Your task to perform on an android device: What's the news in Suriname? Image 0: 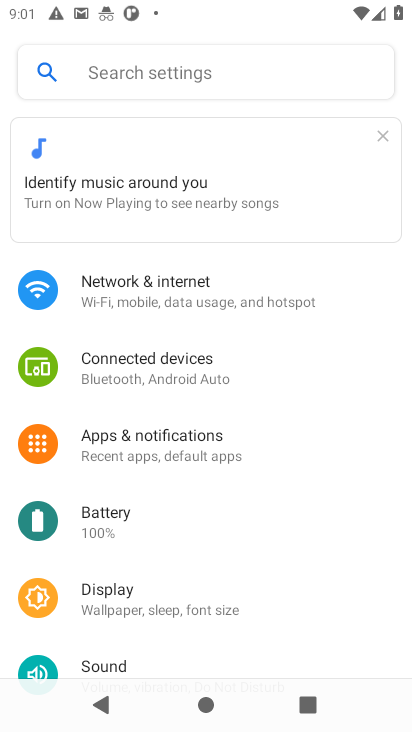
Step 0: press home button
Your task to perform on an android device: What's the news in Suriname? Image 1: 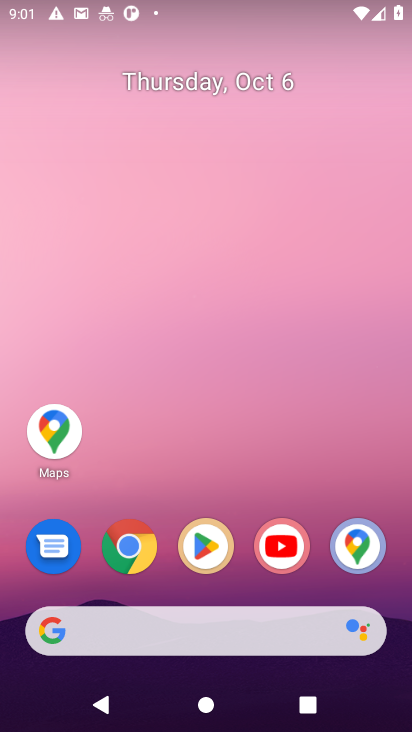
Step 1: click (127, 546)
Your task to perform on an android device: What's the news in Suriname? Image 2: 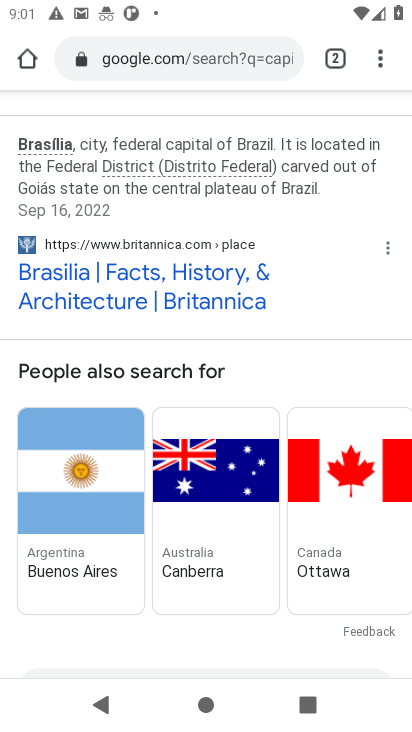
Step 2: click (188, 45)
Your task to perform on an android device: What's the news in Suriname? Image 3: 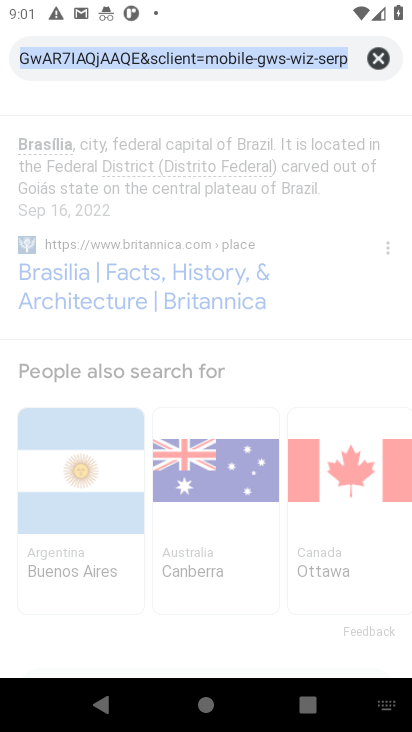
Step 3: click (376, 52)
Your task to perform on an android device: What's the news in Suriname? Image 4: 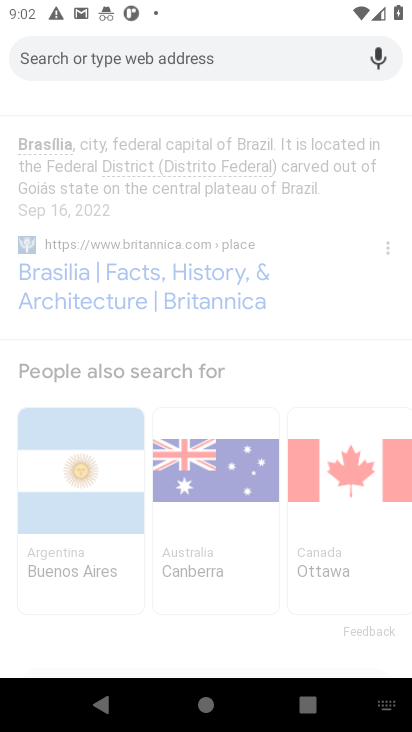
Step 4: type "What's the news in Suriname?"
Your task to perform on an android device: What's the news in Suriname? Image 5: 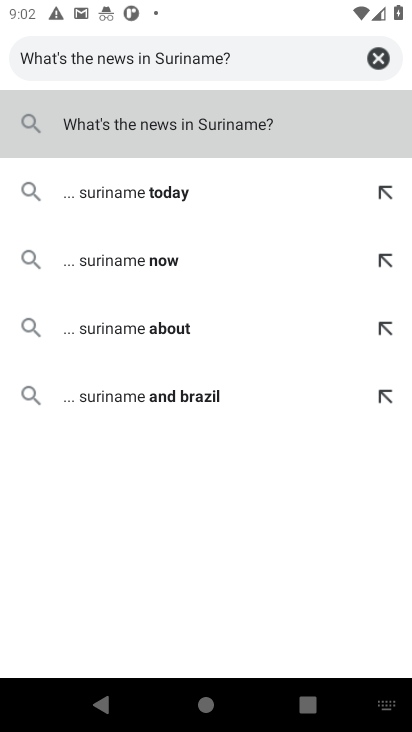
Step 5: click (111, 128)
Your task to perform on an android device: What's the news in Suriname? Image 6: 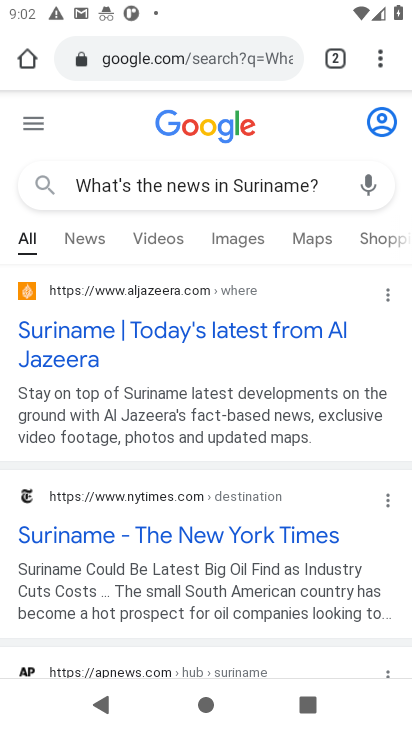
Step 6: click (68, 346)
Your task to perform on an android device: What's the news in Suriname? Image 7: 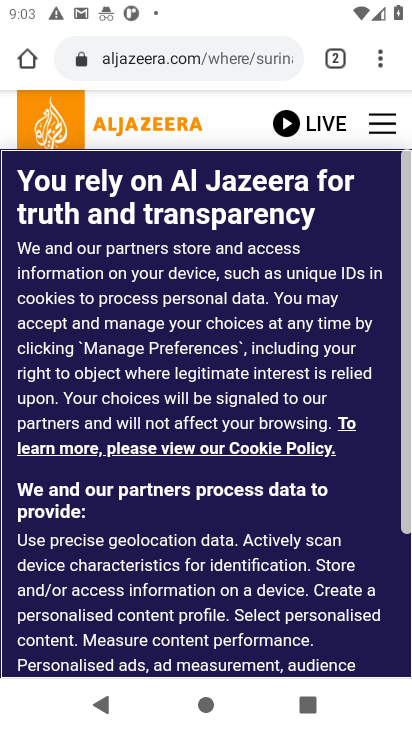
Step 7: drag from (140, 621) to (162, 225)
Your task to perform on an android device: What's the news in Suriname? Image 8: 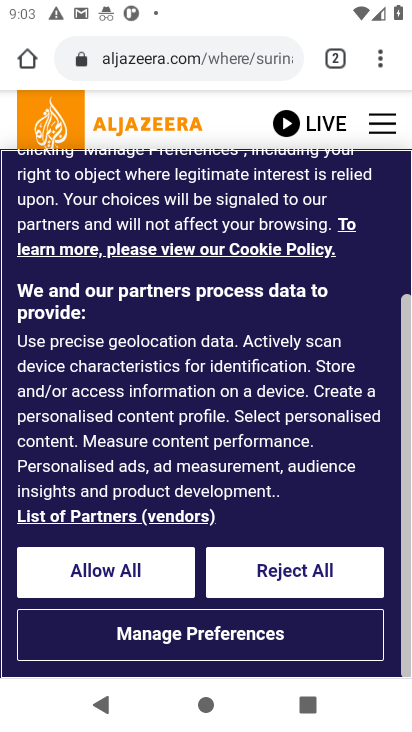
Step 8: click (93, 568)
Your task to perform on an android device: What's the news in Suriname? Image 9: 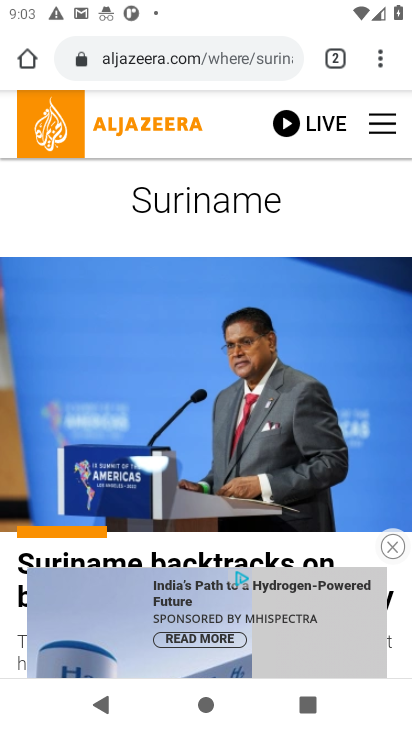
Step 9: drag from (142, 530) to (203, 205)
Your task to perform on an android device: What's the news in Suriname? Image 10: 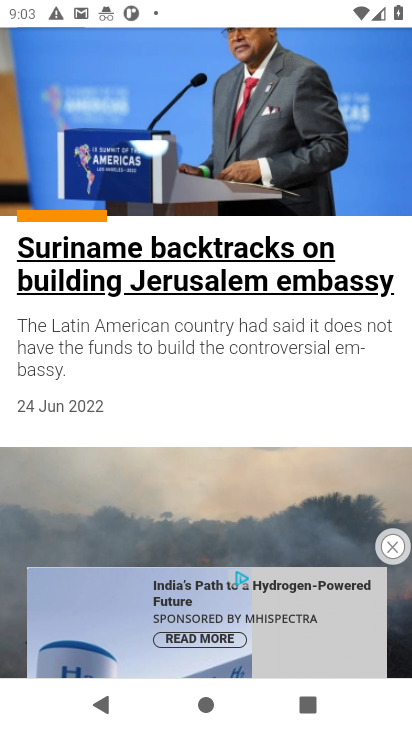
Step 10: click (389, 543)
Your task to perform on an android device: What's the news in Suriname? Image 11: 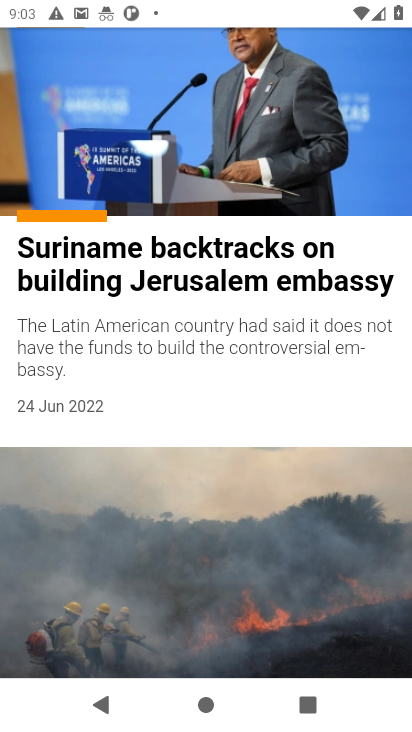
Step 11: task complete